Your task to perform on an android device: check android version Image 0: 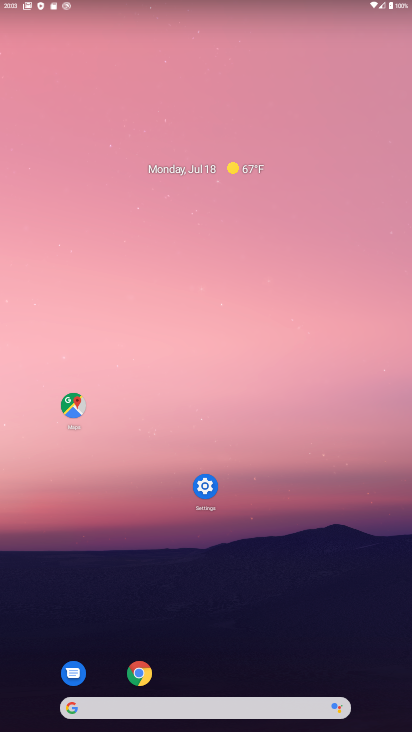
Step 0: drag from (317, 615) to (265, 63)
Your task to perform on an android device: check android version Image 1: 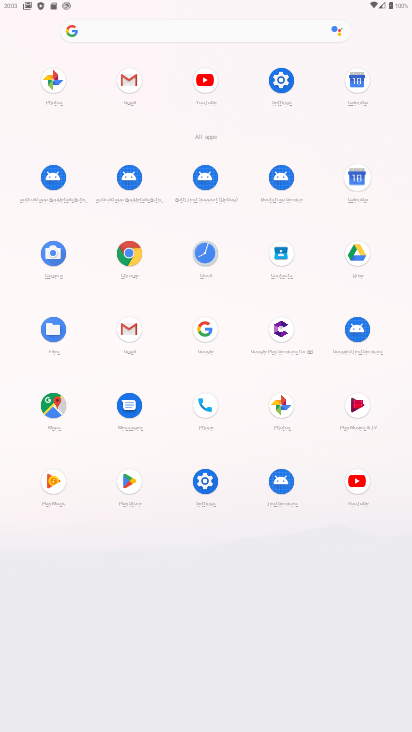
Step 1: click (200, 483)
Your task to perform on an android device: check android version Image 2: 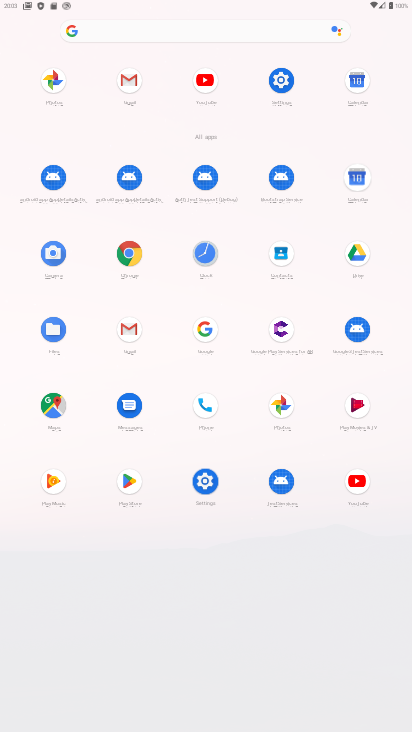
Step 2: click (202, 484)
Your task to perform on an android device: check android version Image 3: 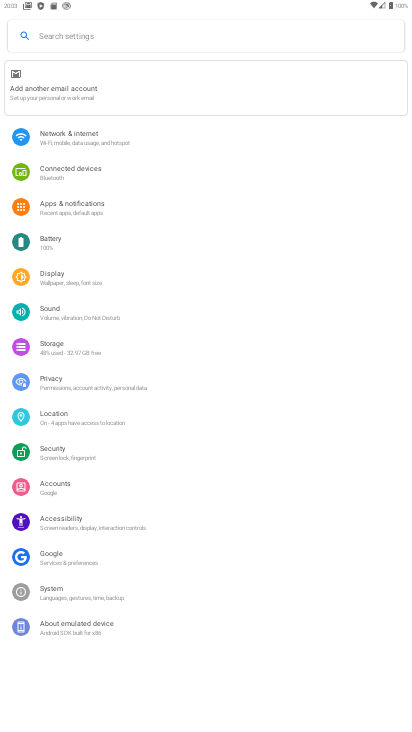
Step 3: click (65, 627)
Your task to perform on an android device: check android version Image 4: 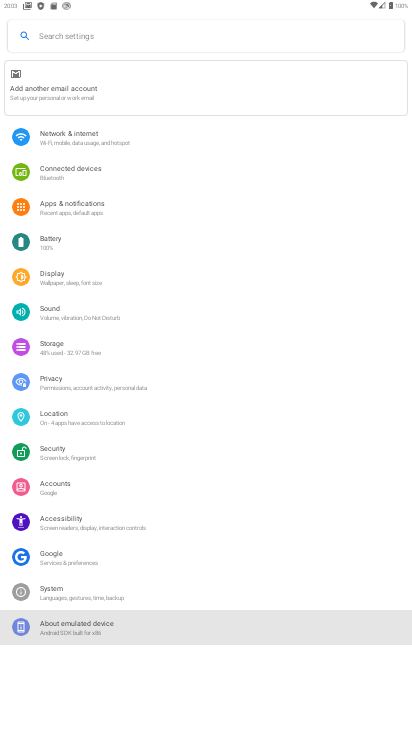
Step 4: click (64, 627)
Your task to perform on an android device: check android version Image 5: 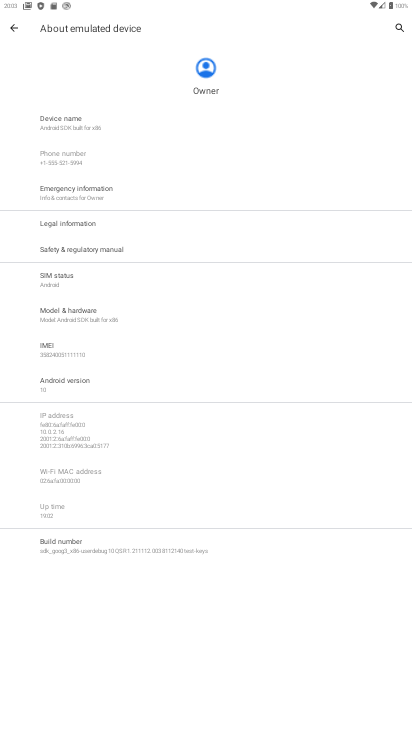
Step 5: task complete